Your task to perform on an android device: toggle priority inbox in the gmail app Image 0: 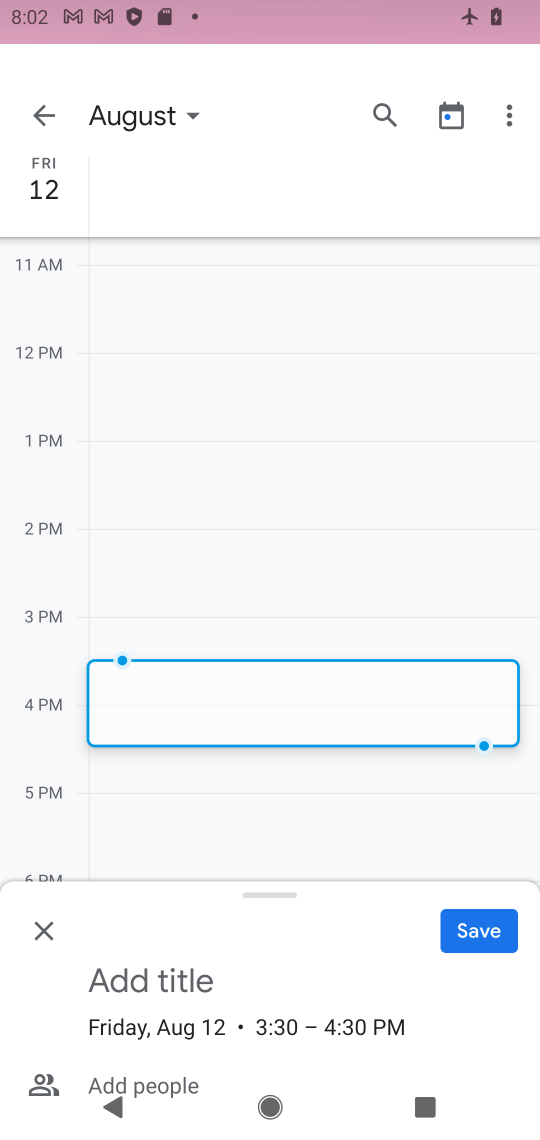
Step 0: press home button
Your task to perform on an android device: toggle priority inbox in the gmail app Image 1: 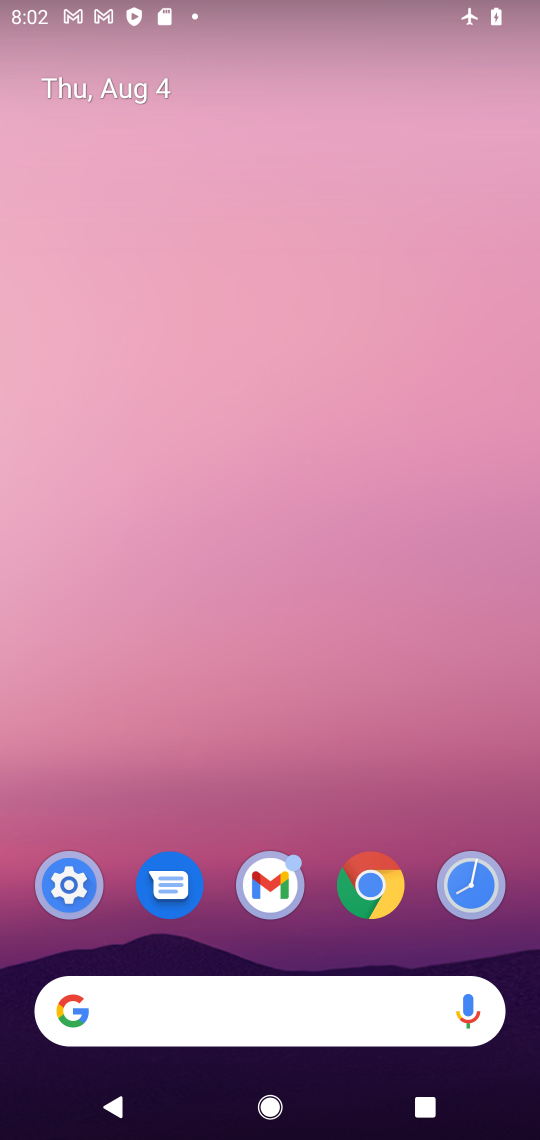
Step 1: drag from (337, 731) to (403, 7)
Your task to perform on an android device: toggle priority inbox in the gmail app Image 2: 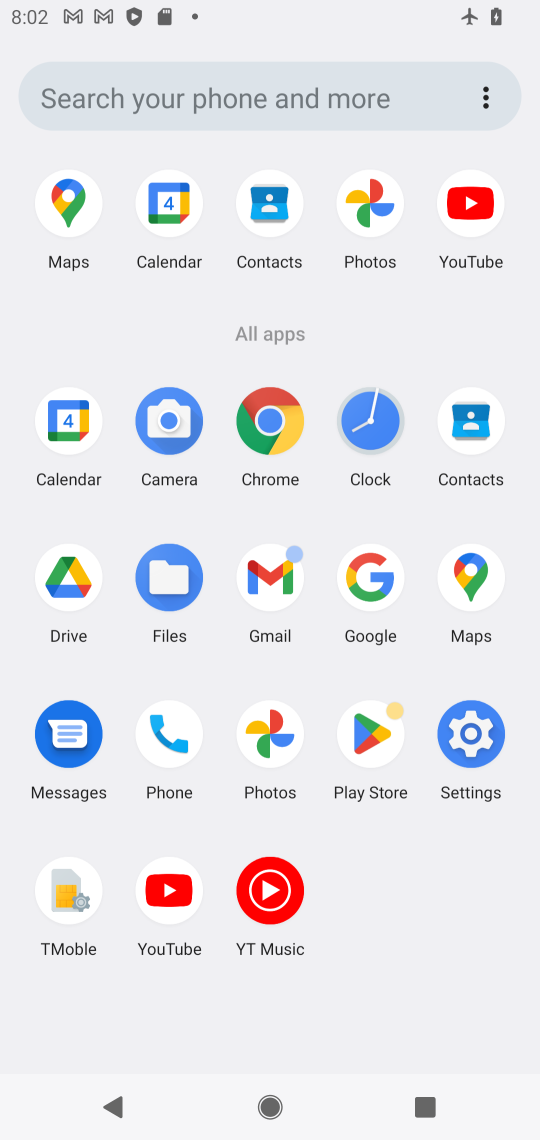
Step 2: click (260, 578)
Your task to perform on an android device: toggle priority inbox in the gmail app Image 3: 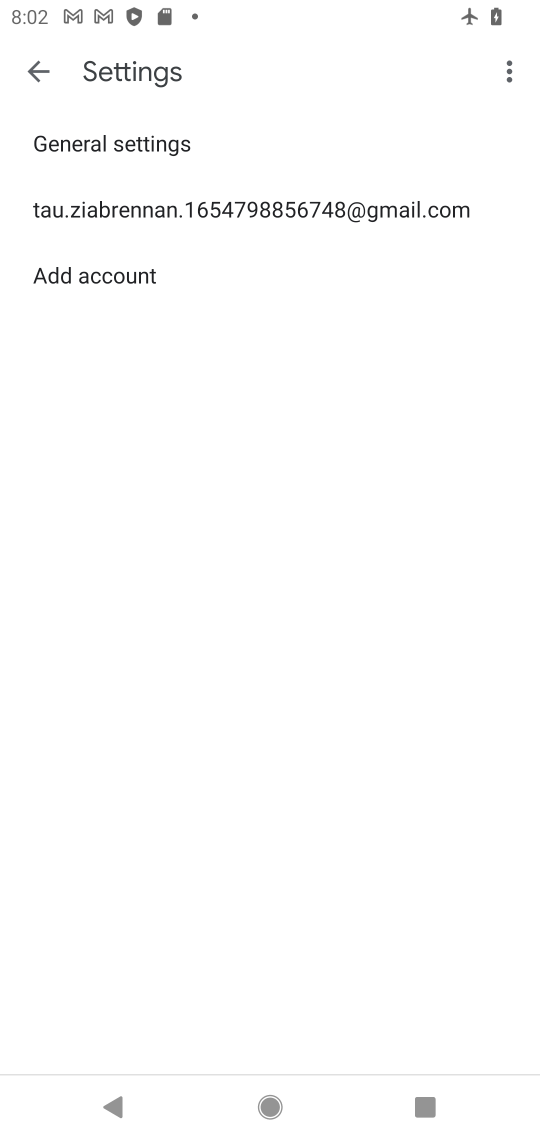
Step 3: click (85, 213)
Your task to perform on an android device: toggle priority inbox in the gmail app Image 4: 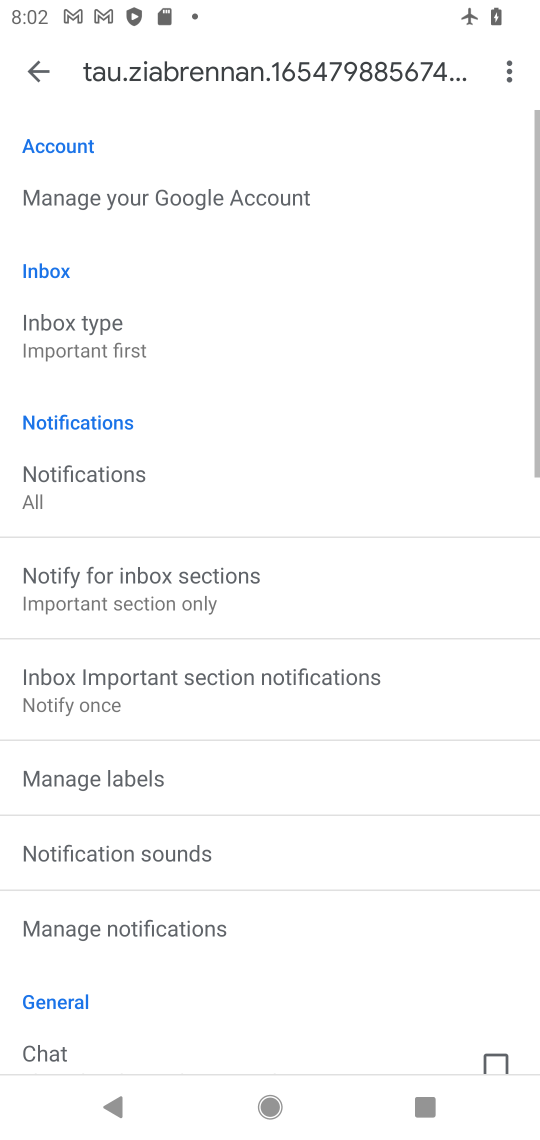
Step 4: click (122, 333)
Your task to perform on an android device: toggle priority inbox in the gmail app Image 5: 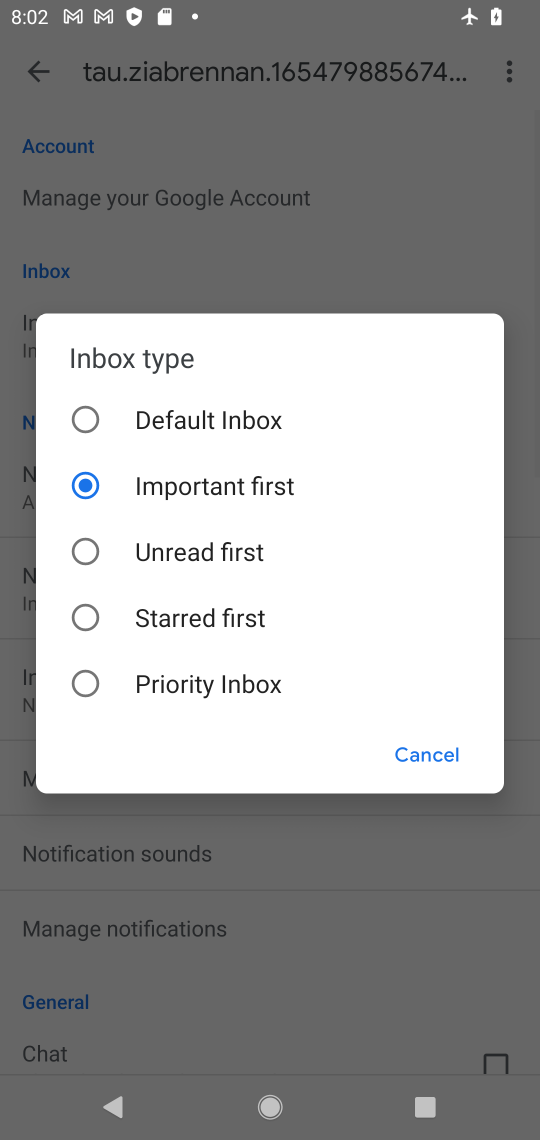
Step 5: click (144, 409)
Your task to perform on an android device: toggle priority inbox in the gmail app Image 6: 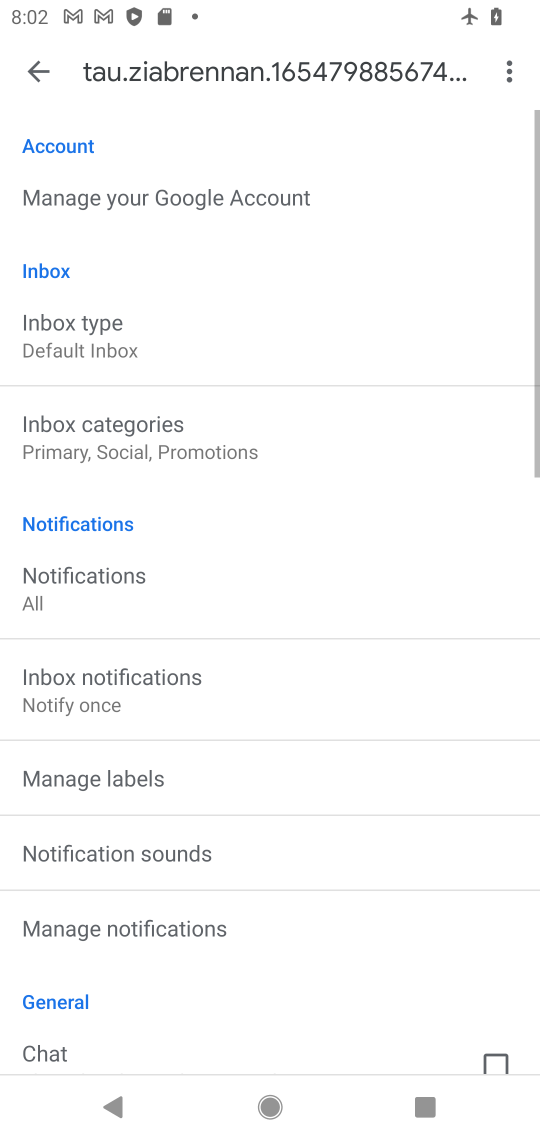
Step 6: task complete